Your task to perform on an android device: change notification settings in the gmail app Image 0: 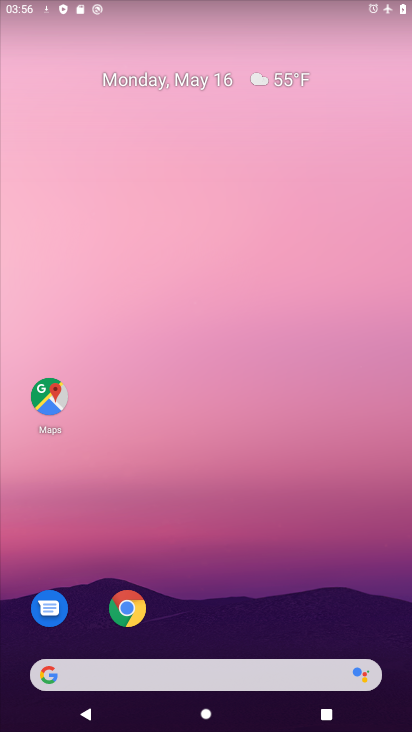
Step 0: drag from (184, 601) to (184, 160)
Your task to perform on an android device: change notification settings in the gmail app Image 1: 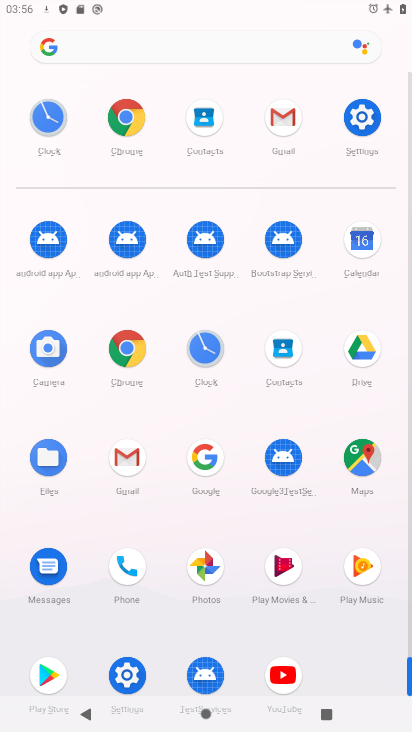
Step 1: click (272, 139)
Your task to perform on an android device: change notification settings in the gmail app Image 2: 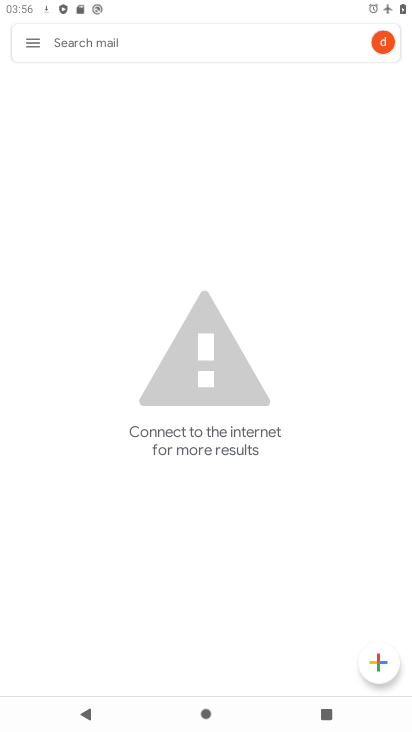
Step 2: click (30, 41)
Your task to perform on an android device: change notification settings in the gmail app Image 3: 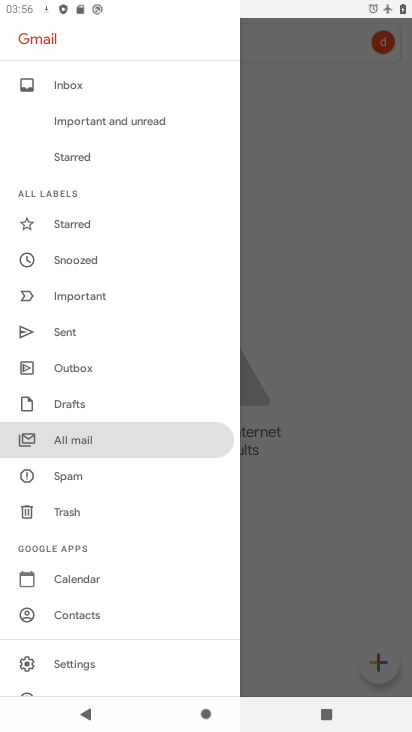
Step 3: click (114, 653)
Your task to perform on an android device: change notification settings in the gmail app Image 4: 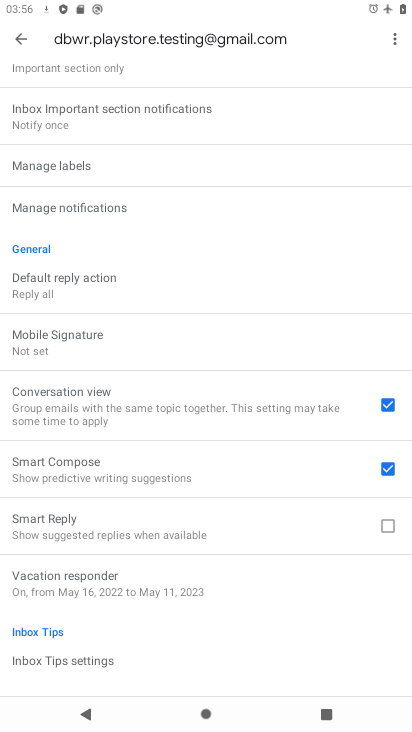
Step 4: drag from (149, 267) to (154, 423)
Your task to perform on an android device: change notification settings in the gmail app Image 5: 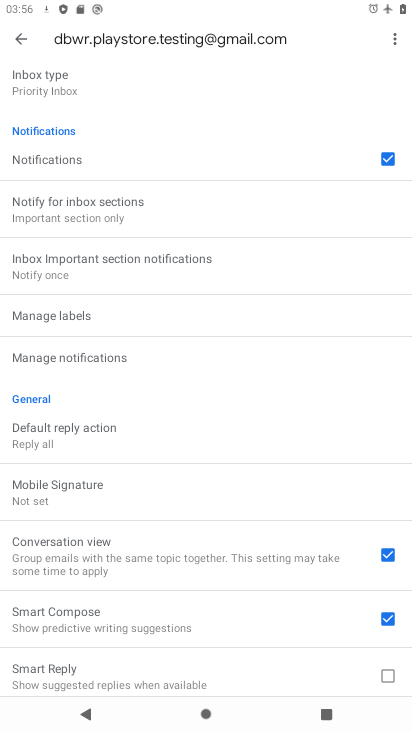
Step 5: click (122, 357)
Your task to perform on an android device: change notification settings in the gmail app Image 6: 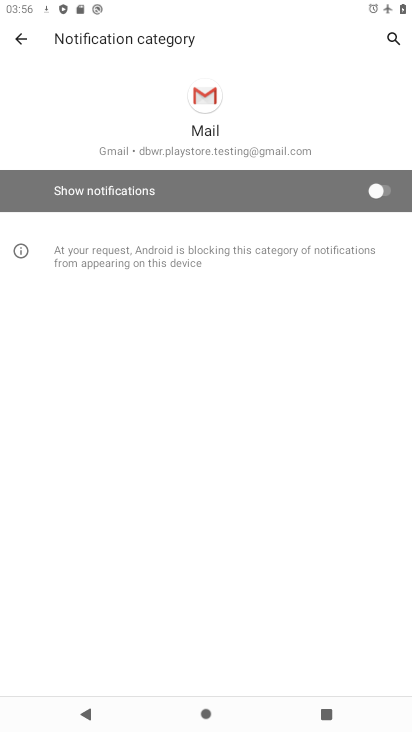
Step 6: click (380, 192)
Your task to perform on an android device: change notification settings in the gmail app Image 7: 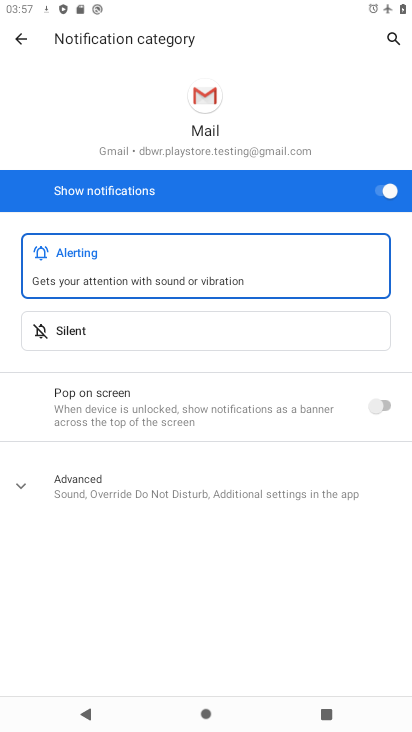
Step 7: task complete